Your task to perform on an android device: uninstall "Pandora - Music & Podcasts" Image 0: 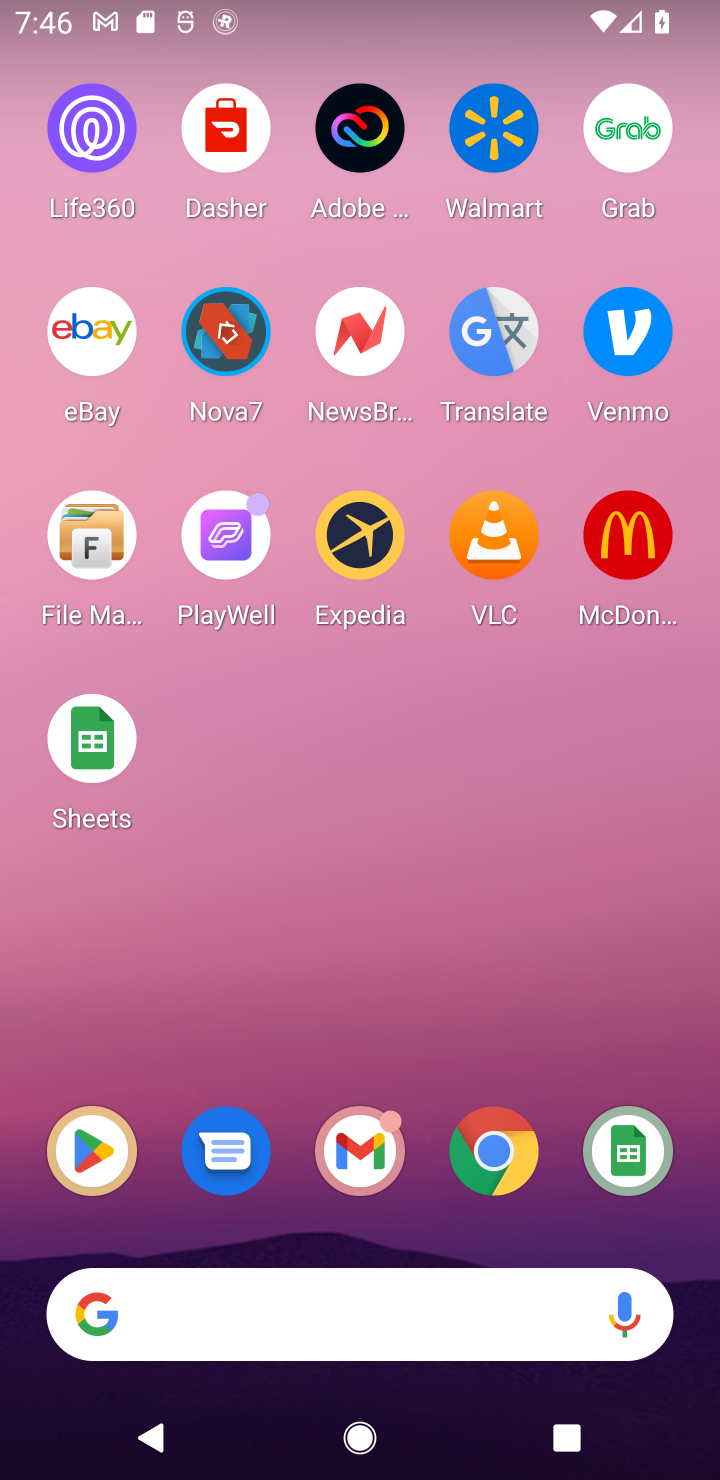
Step 0: click (115, 1160)
Your task to perform on an android device: uninstall "Pandora - Music & Podcasts" Image 1: 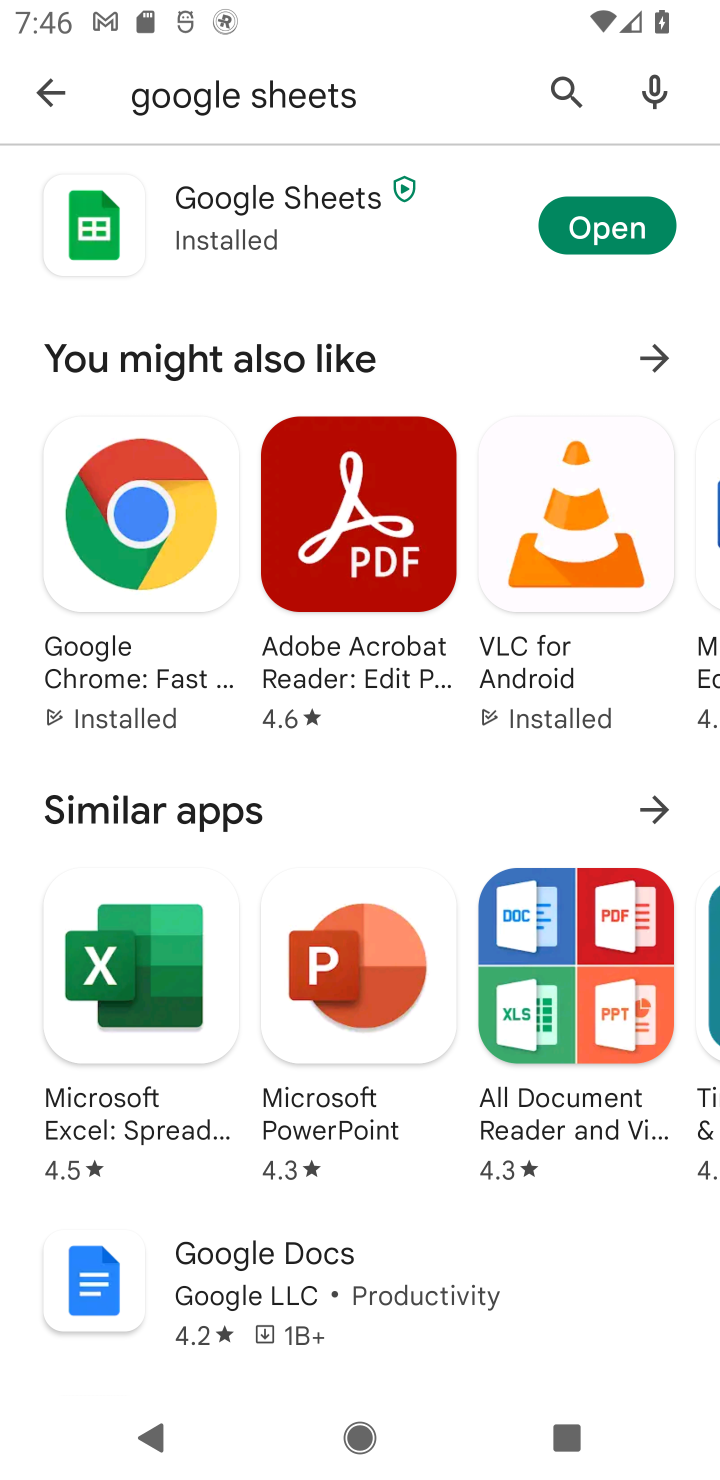
Step 1: click (575, 90)
Your task to perform on an android device: uninstall "Pandora - Music & Podcasts" Image 2: 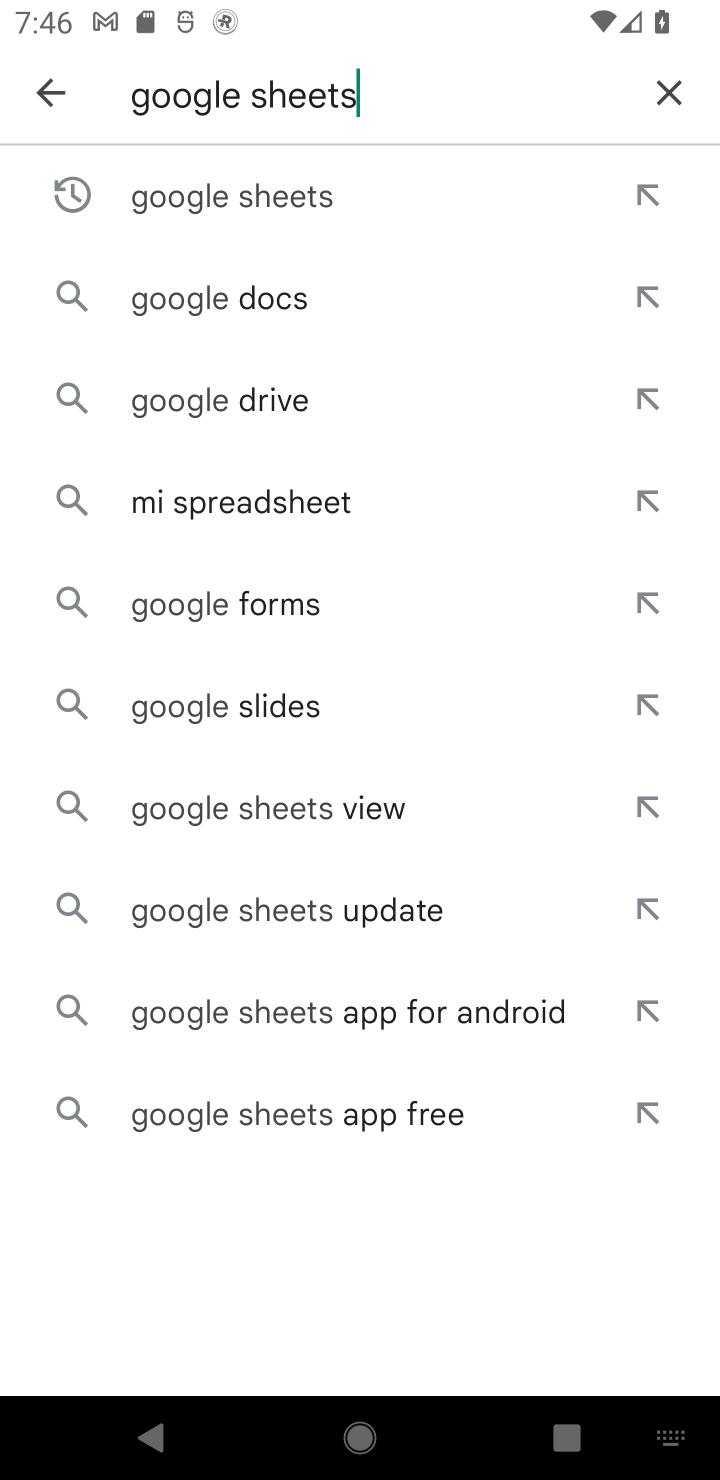
Step 2: click (641, 88)
Your task to perform on an android device: uninstall "Pandora - Music & Podcasts" Image 3: 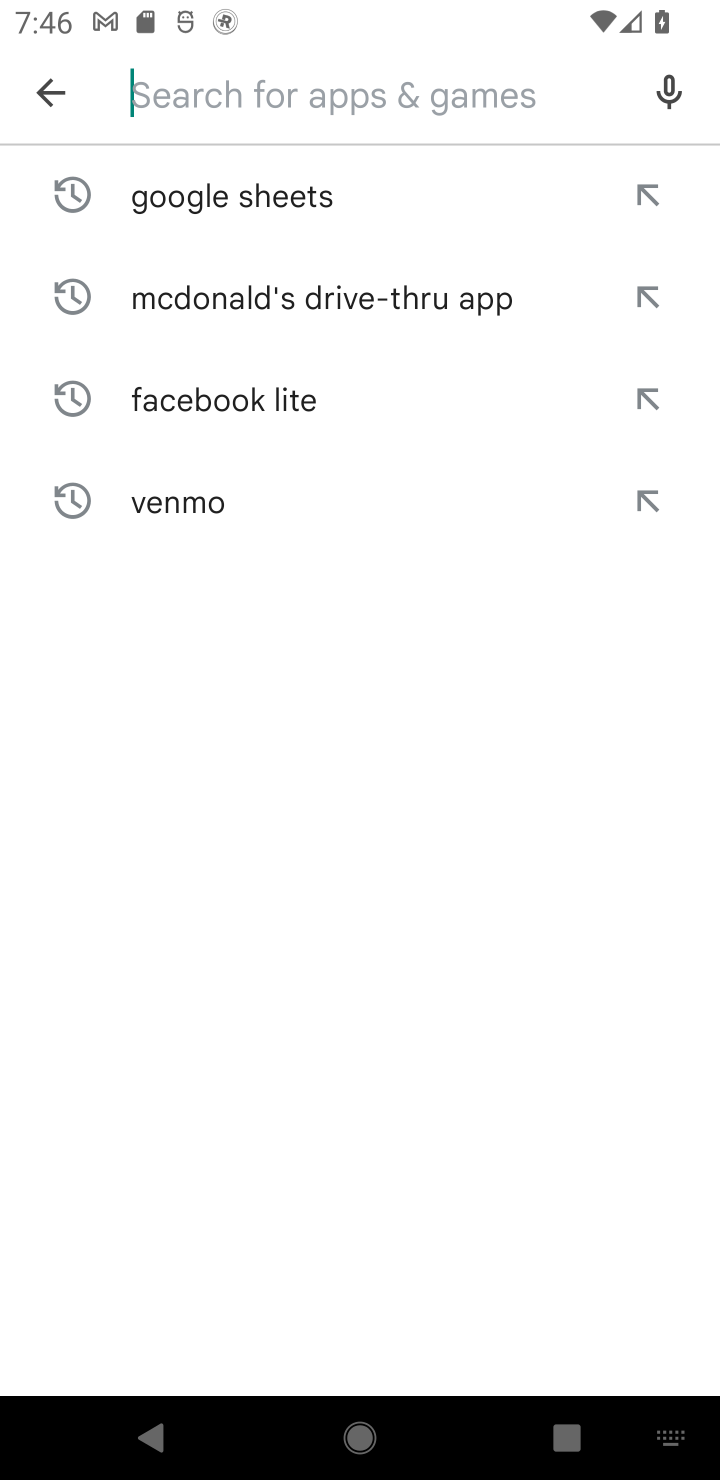
Step 3: type "Pandora - Music & Podcasts"
Your task to perform on an android device: uninstall "Pandora - Music & Podcasts" Image 4: 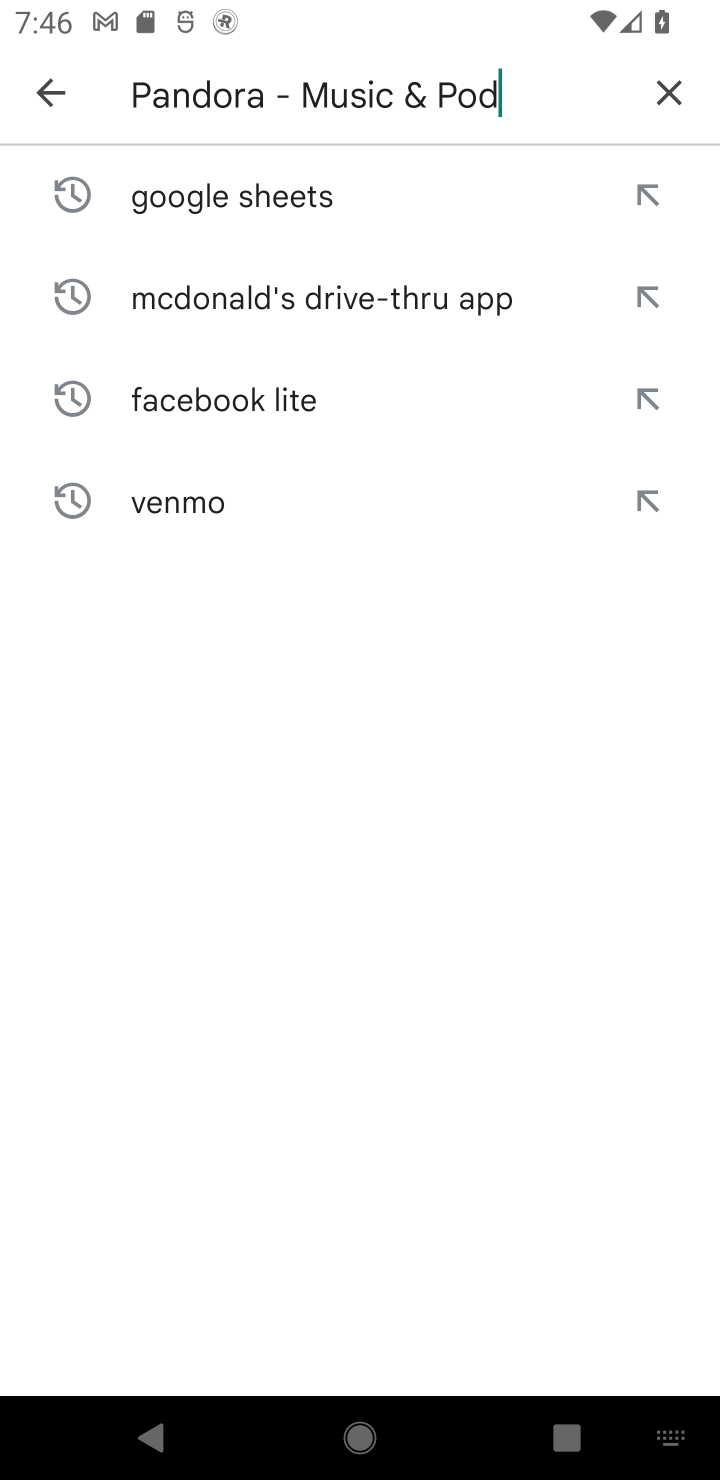
Step 4: type ""
Your task to perform on an android device: uninstall "Pandora - Music & Podcasts" Image 5: 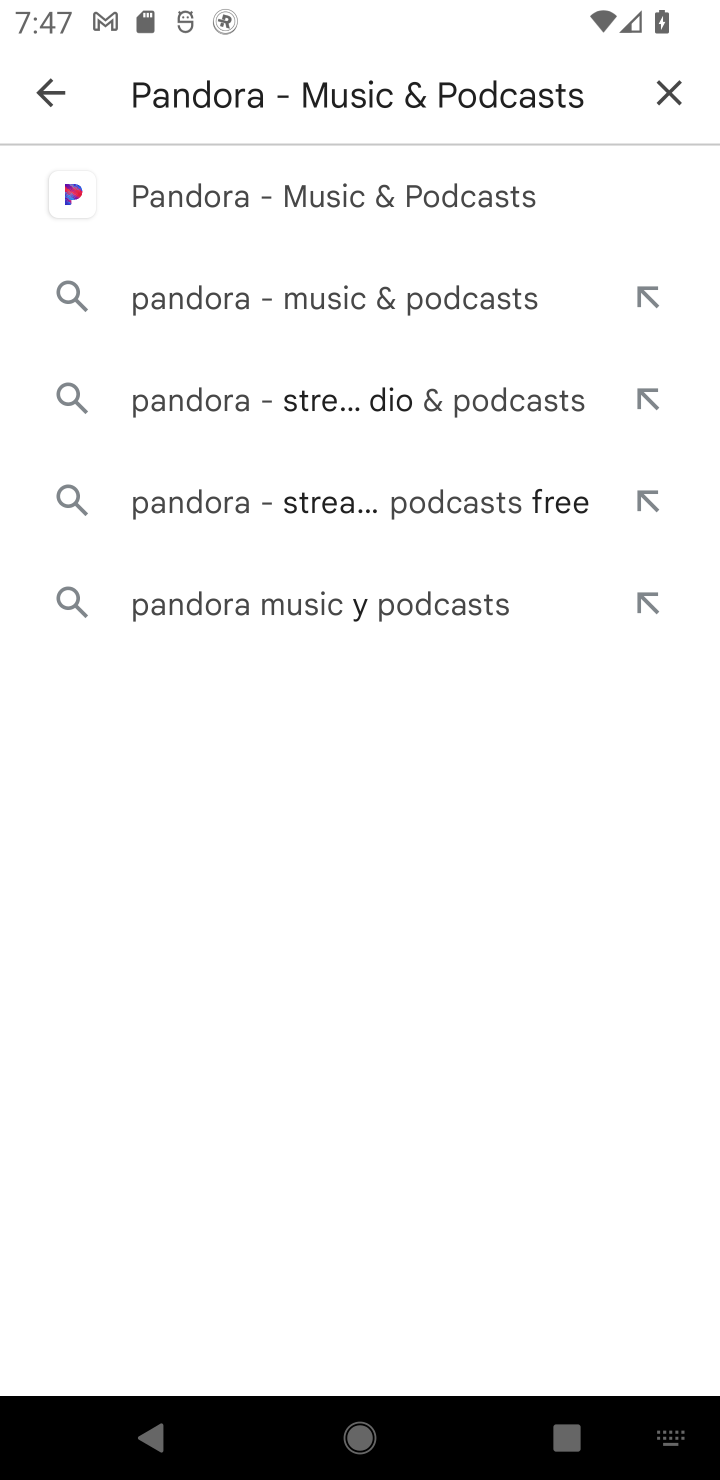
Step 5: click (191, 211)
Your task to perform on an android device: uninstall "Pandora - Music & Podcasts" Image 6: 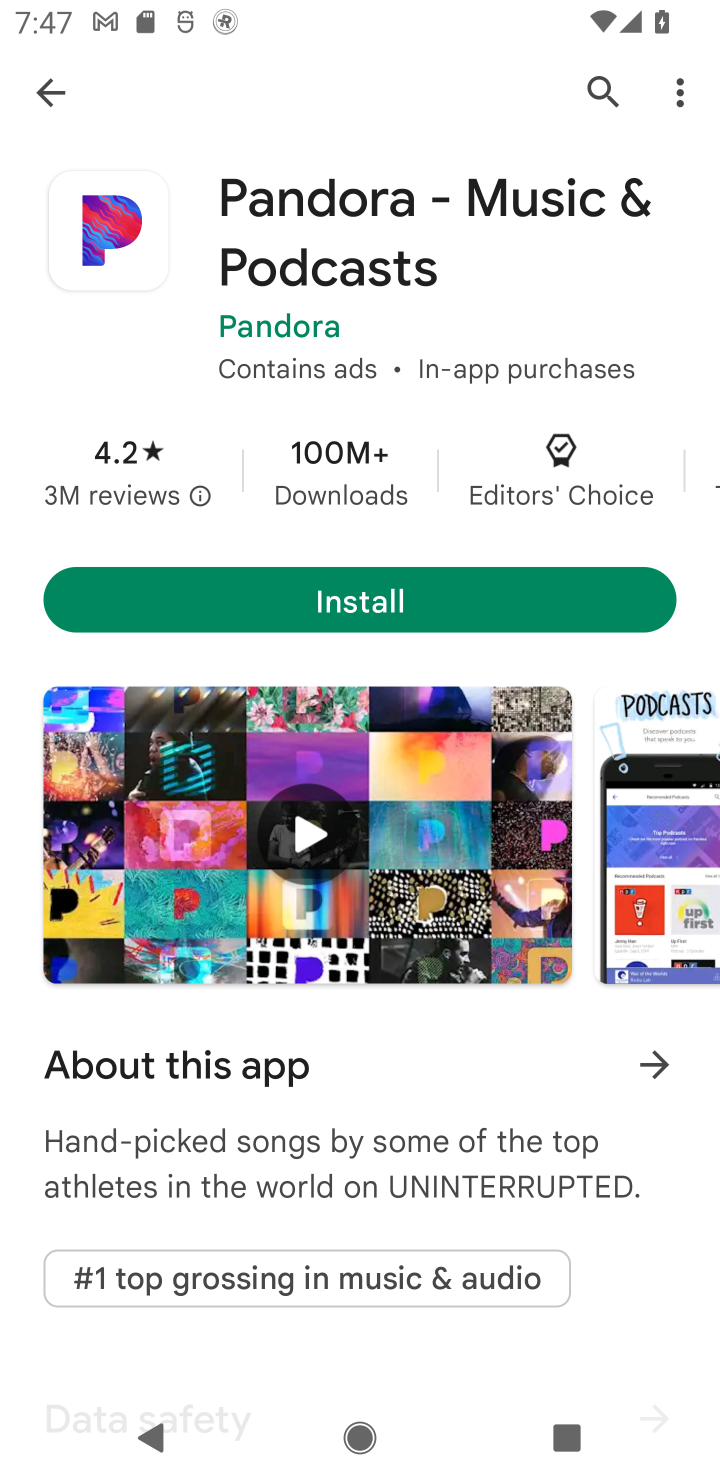
Step 6: task complete